Your task to perform on an android device: Open settings on Google Maps Image 0: 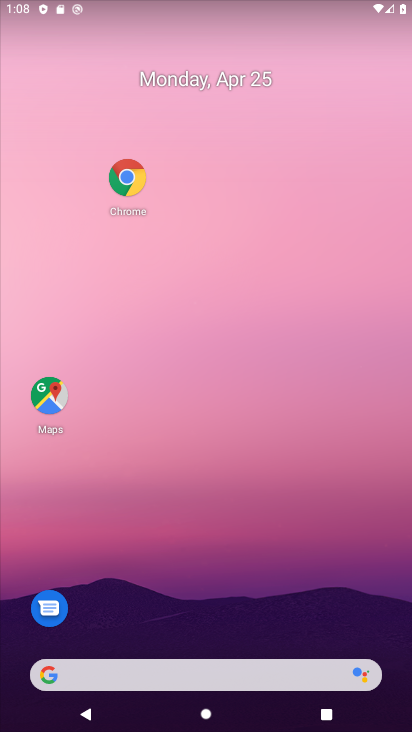
Step 0: drag from (300, 593) to (244, 41)
Your task to perform on an android device: Open settings on Google Maps Image 1: 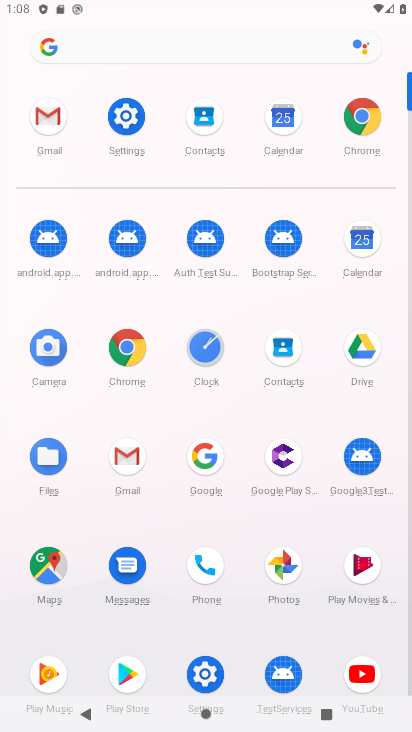
Step 1: click (48, 570)
Your task to perform on an android device: Open settings on Google Maps Image 2: 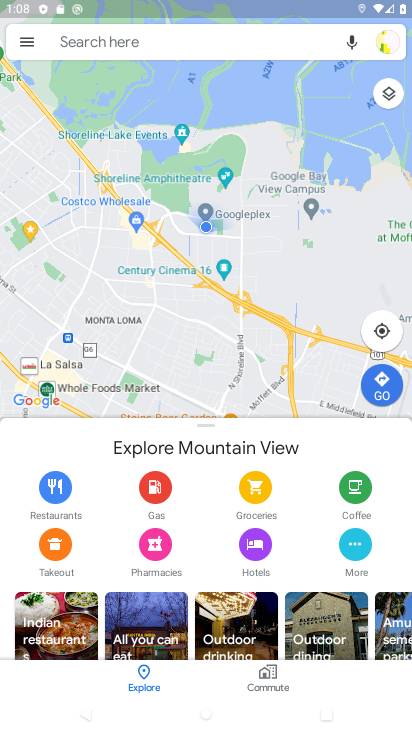
Step 2: task complete